Your task to perform on an android device: Clear the cart on ebay.com. Add "lenovo thinkpad" to the cart on ebay.com, then select checkout. Image 0: 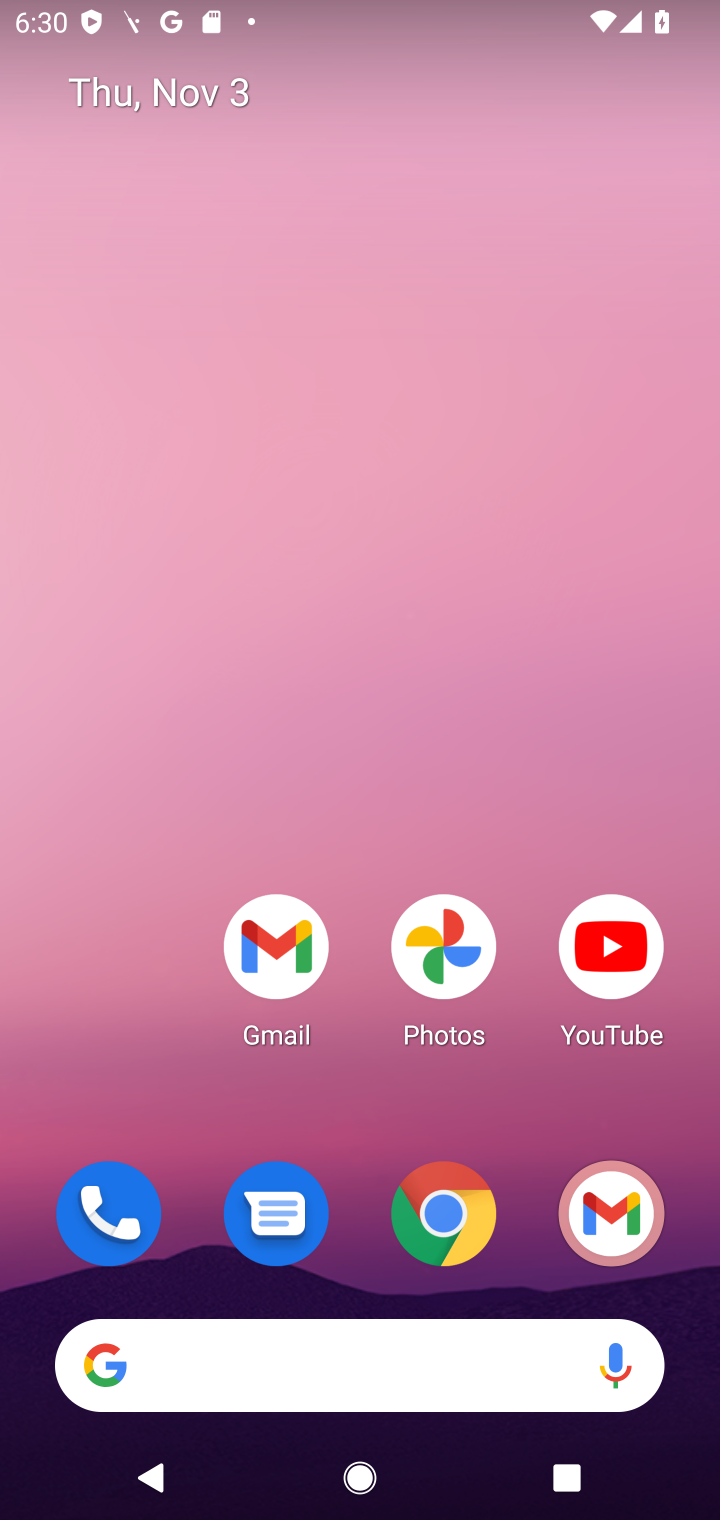
Step 0: click (439, 1226)
Your task to perform on an android device: Clear the cart on ebay.com. Add "lenovo thinkpad" to the cart on ebay.com, then select checkout. Image 1: 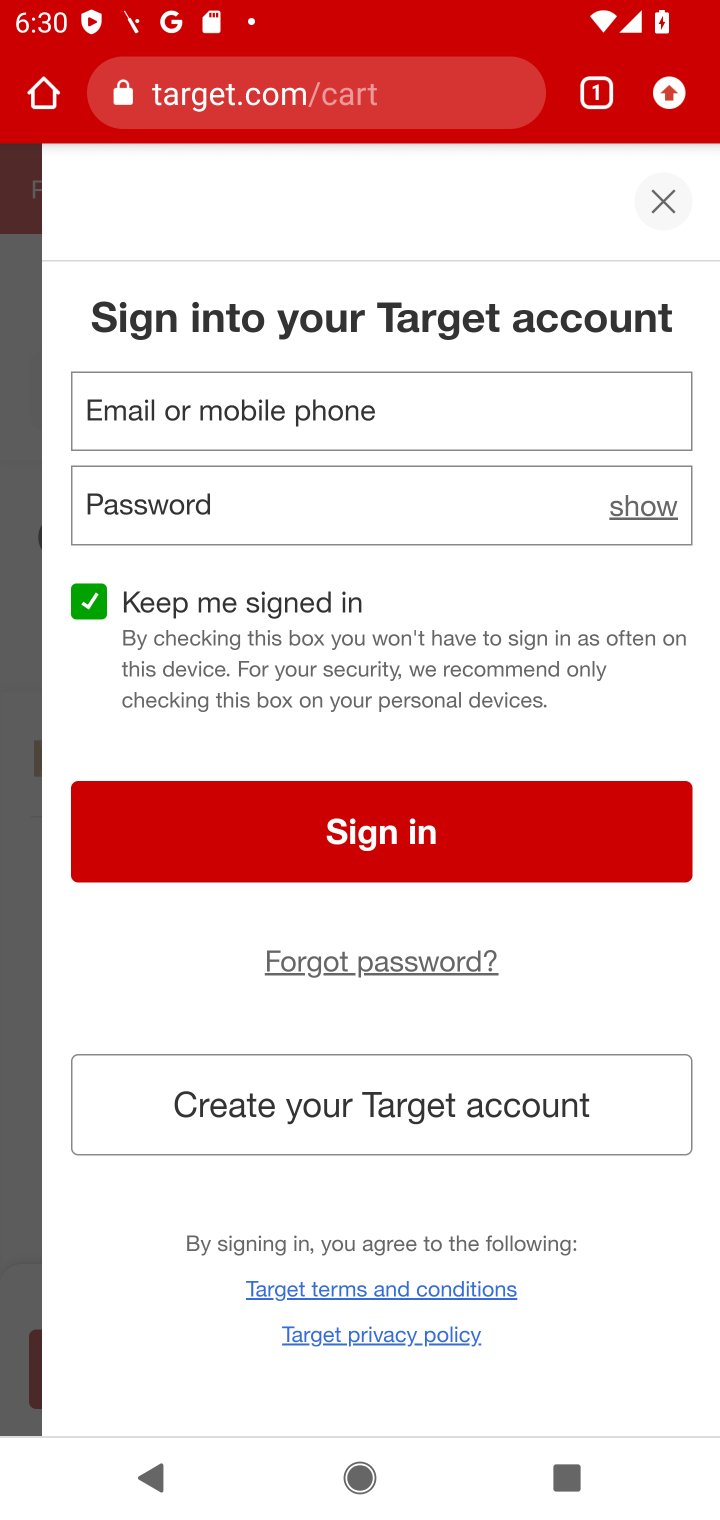
Step 1: click (238, 88)
Your task to perform on an android device: Clear the cart on ebay.com. Add "lenovo thinkpad" to the cart on ebay.com, then select checkout. Image 2: 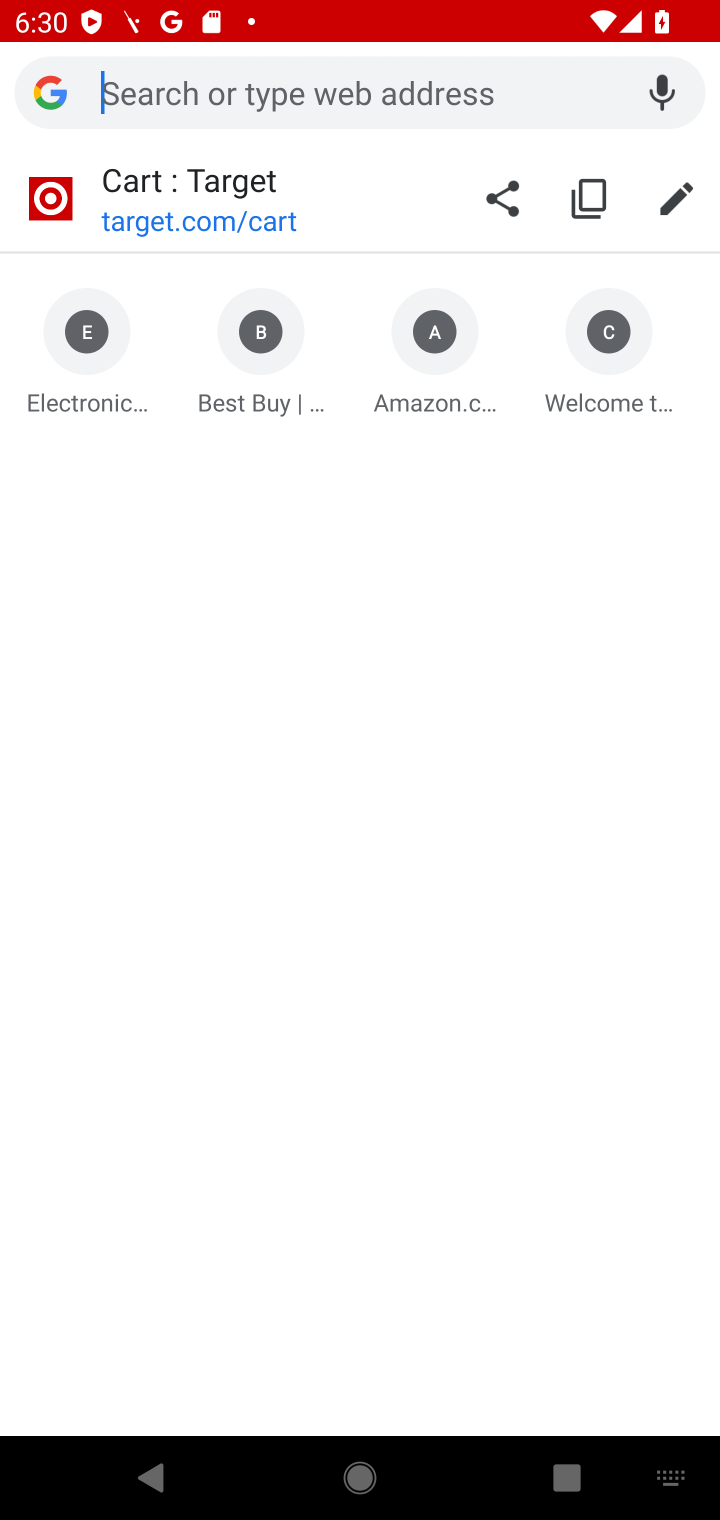
Step 2: type "ebay.com"
Your task to perform on an android device: Clear the cart on ebay.com. Add "lenovo thinkpad" to the cart on ebay.com, then select checkout. Image 3: 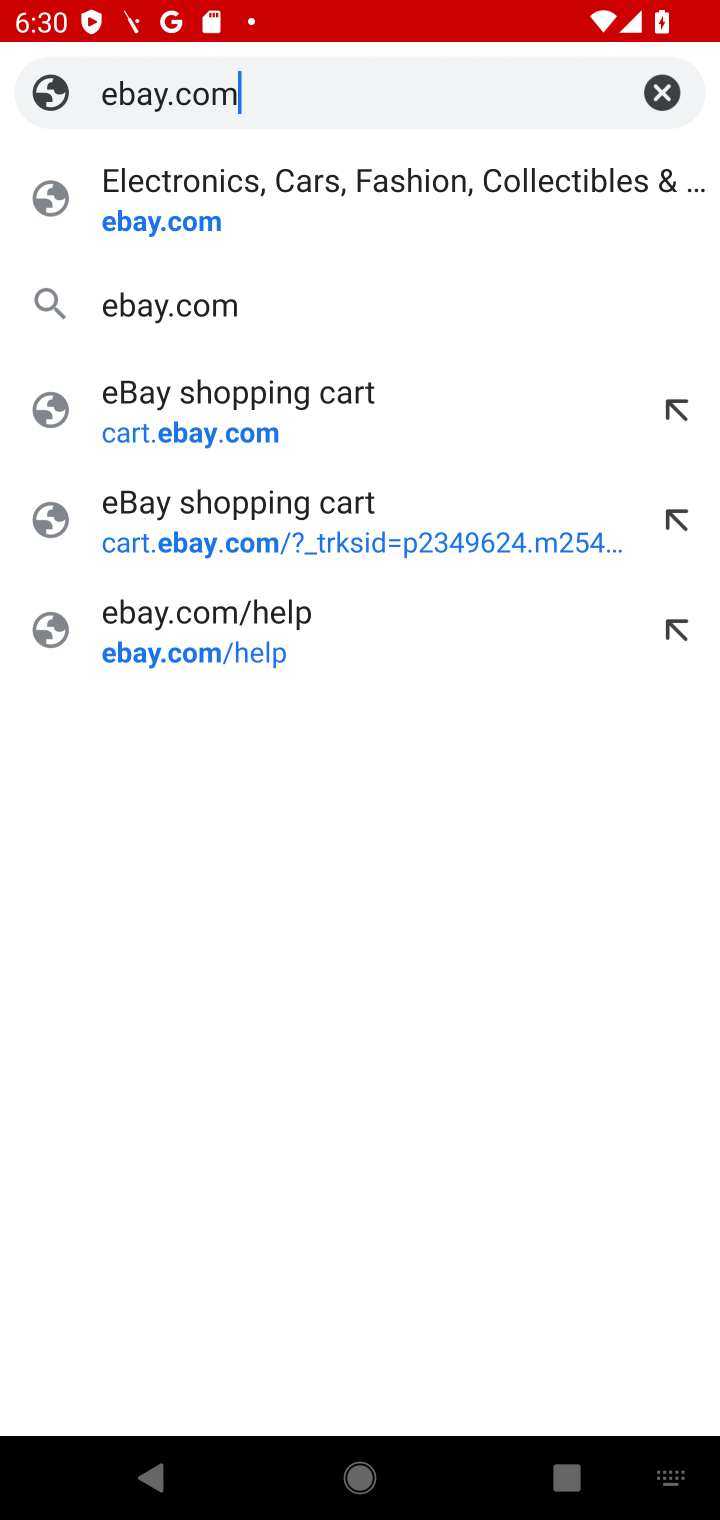
Step 3: click (186, 245)
Your task to perform on an android device: Clear the cart on ebay.com. Add "lenovo thinkpad" to the cart on ebay.com, then select checkout. Image 4: 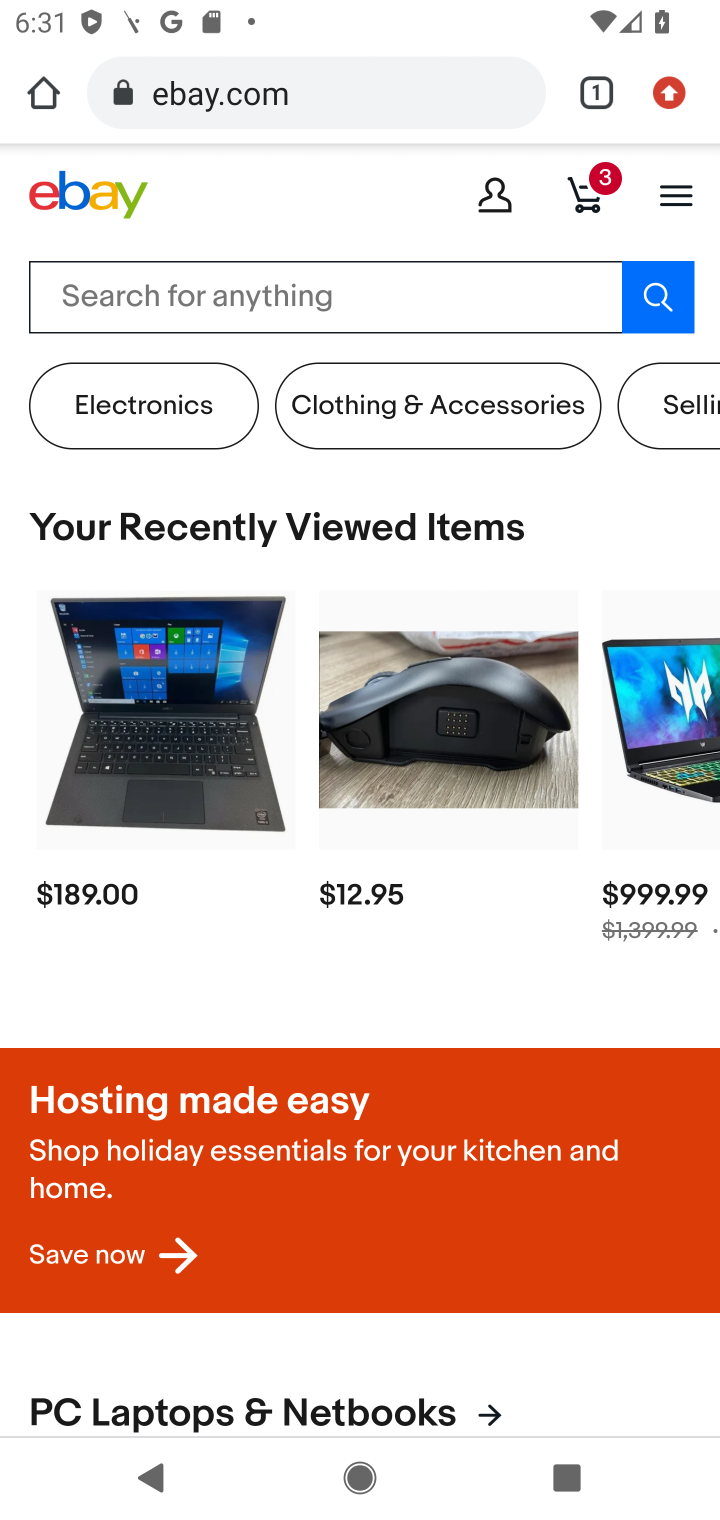
Step 4: click (593, 193)
Your task to perform on an android device: Clear the cart on ebay.com. Add "lenovo thinkpad" to the cart on ebay.com, then select checkout. Image 5: 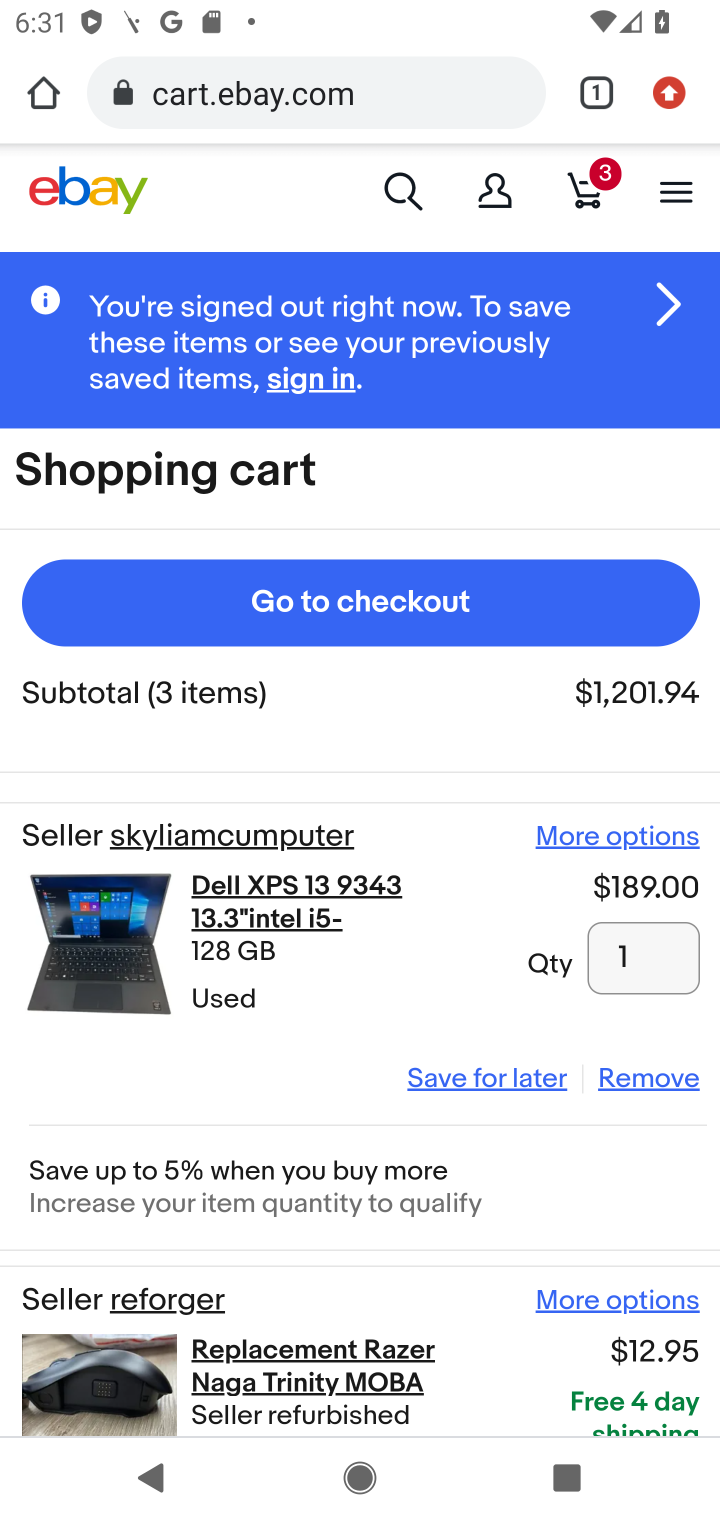
Step 5: click (620, 1074)
Your task to perform on an android device: Clear the cart on ebay.com. Add "lenovo thinkpad" to the cart on ebay.com, then select checkout. Image 6: 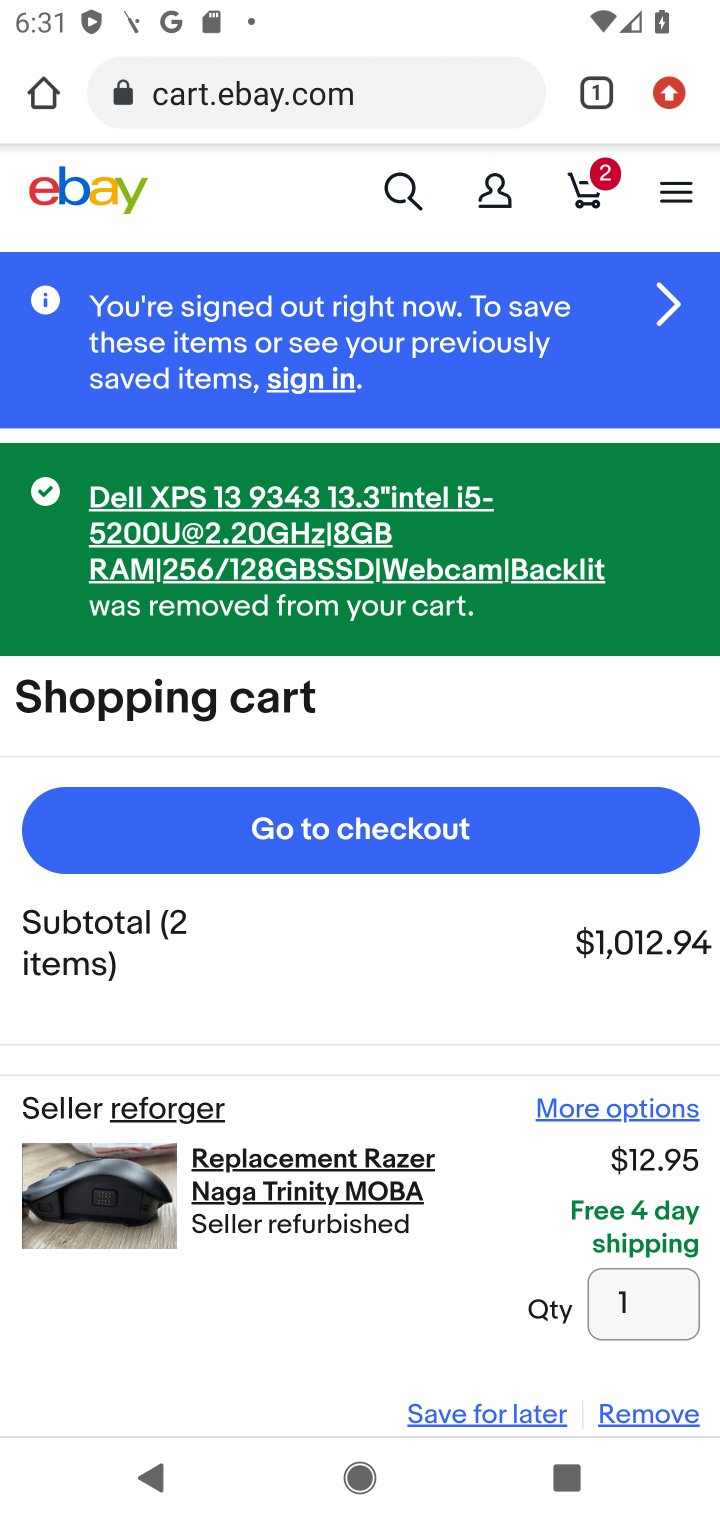
Step 6: click (632, 1417)
Your task to perform on an android device: Clear the cart on ebay.com. Add "lenovo thinkpad" to the cart on ebay.com, then select checkout. Image 7: 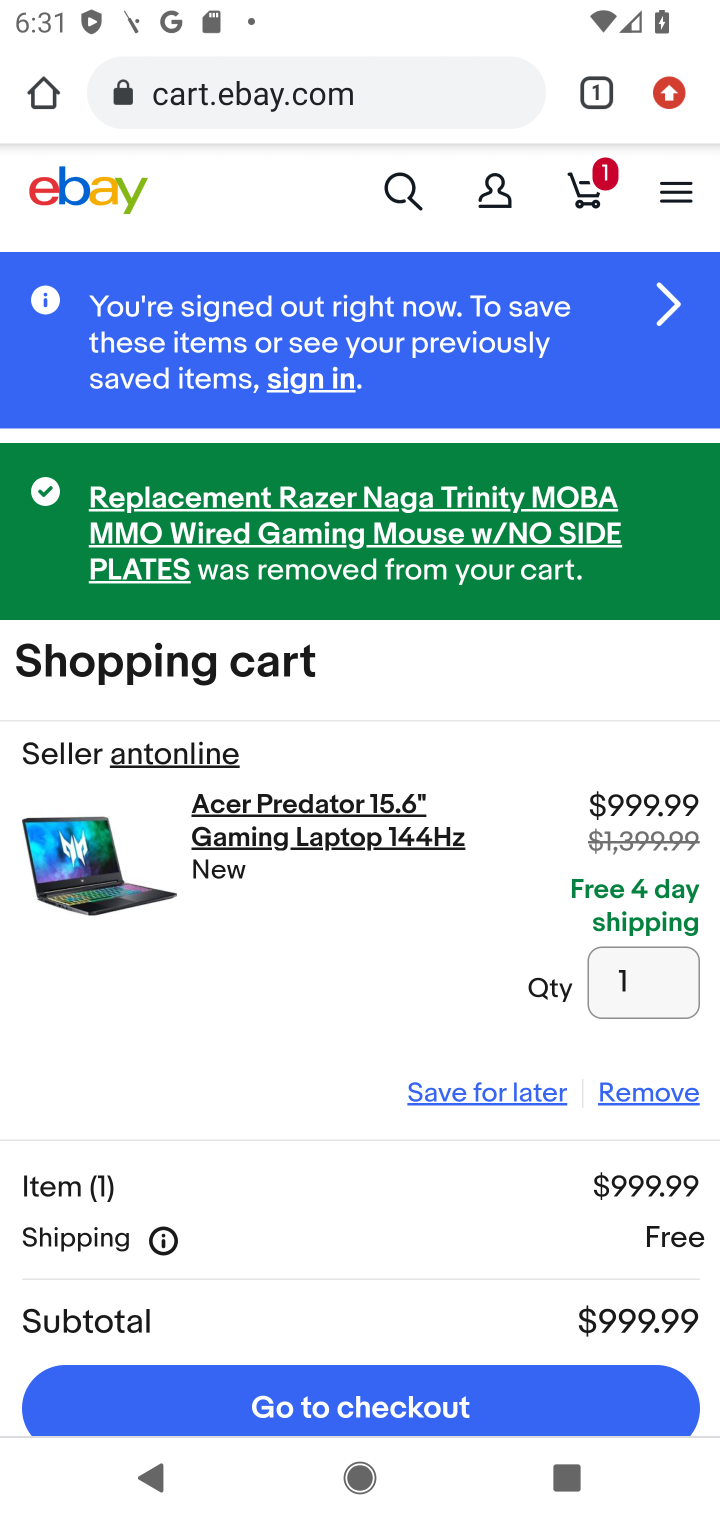
Step 7: click (640, 1089)
Your task to perform on an android device: Clear the cart on ebay.com. Add "lenovo thinkpad" to the cart on ebay.com, then select checkout. Image 8: 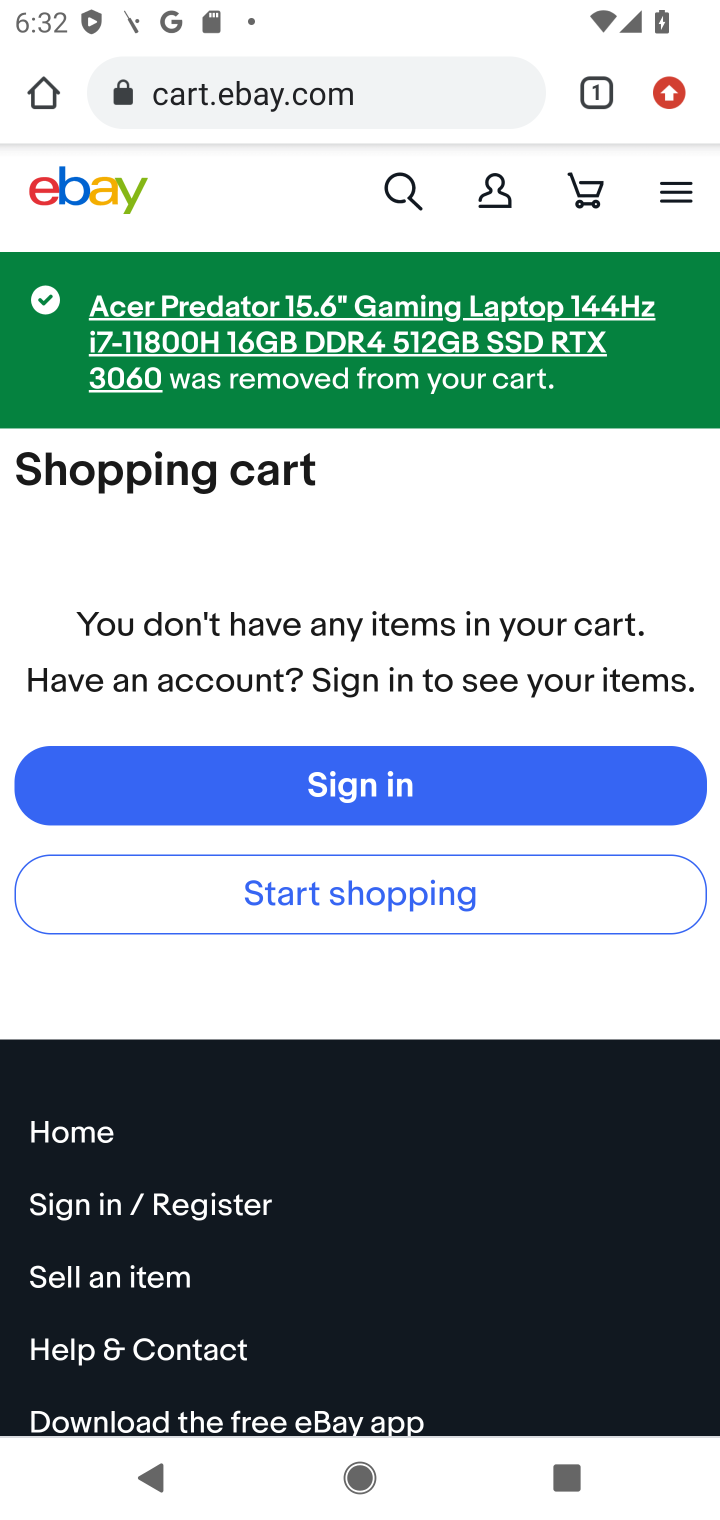
Step 8: click (406, 181)
Your task to perform on an android device: Clear the cart on ebay.com. Add "lenovo thinkpad" to the cart on ebay.com, then select checkout. Image 9: 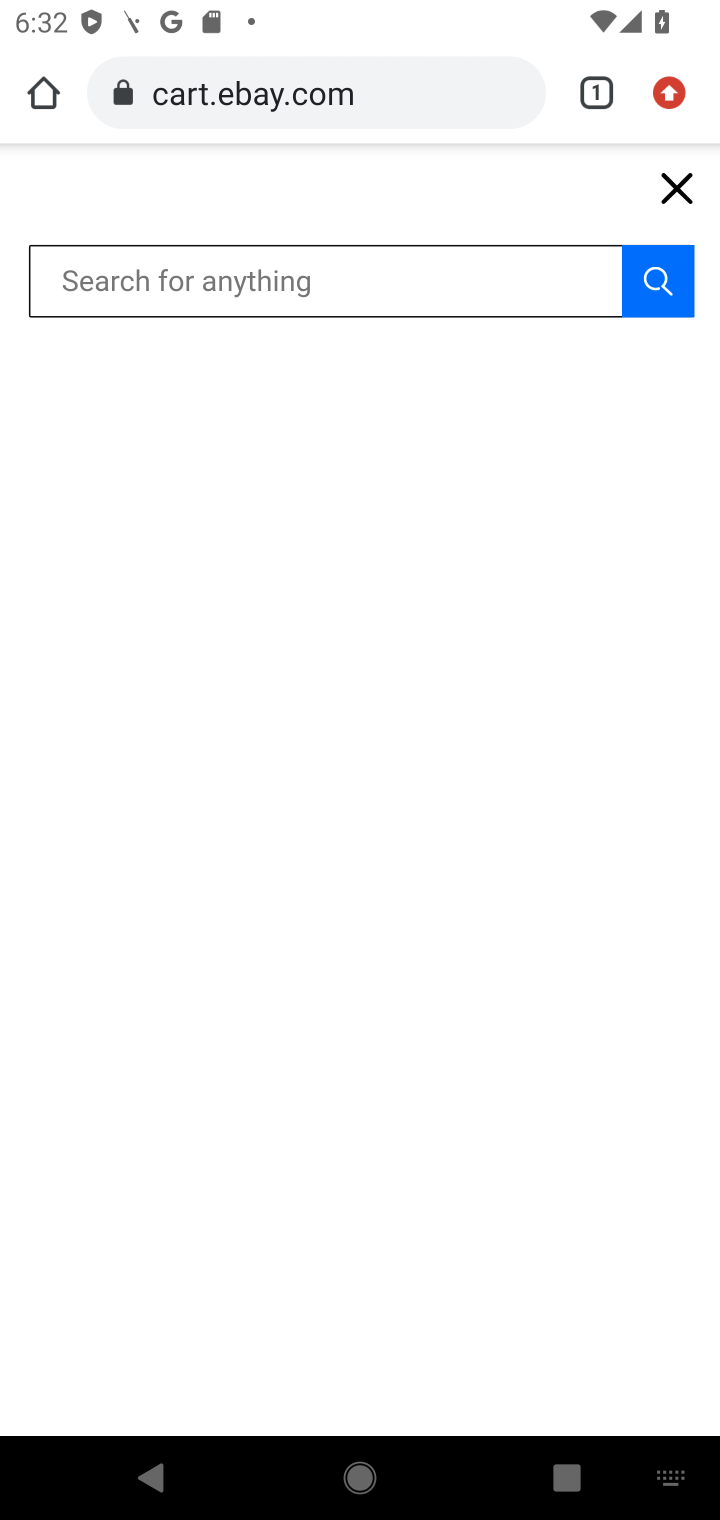
Step 9: type "lenovo thinkpad"
Your task to perform on an android device: Clear the cart on ebay.com. Add "lenovo thinkpad" to the cart on ebay.com, then select checkout. Image 10: 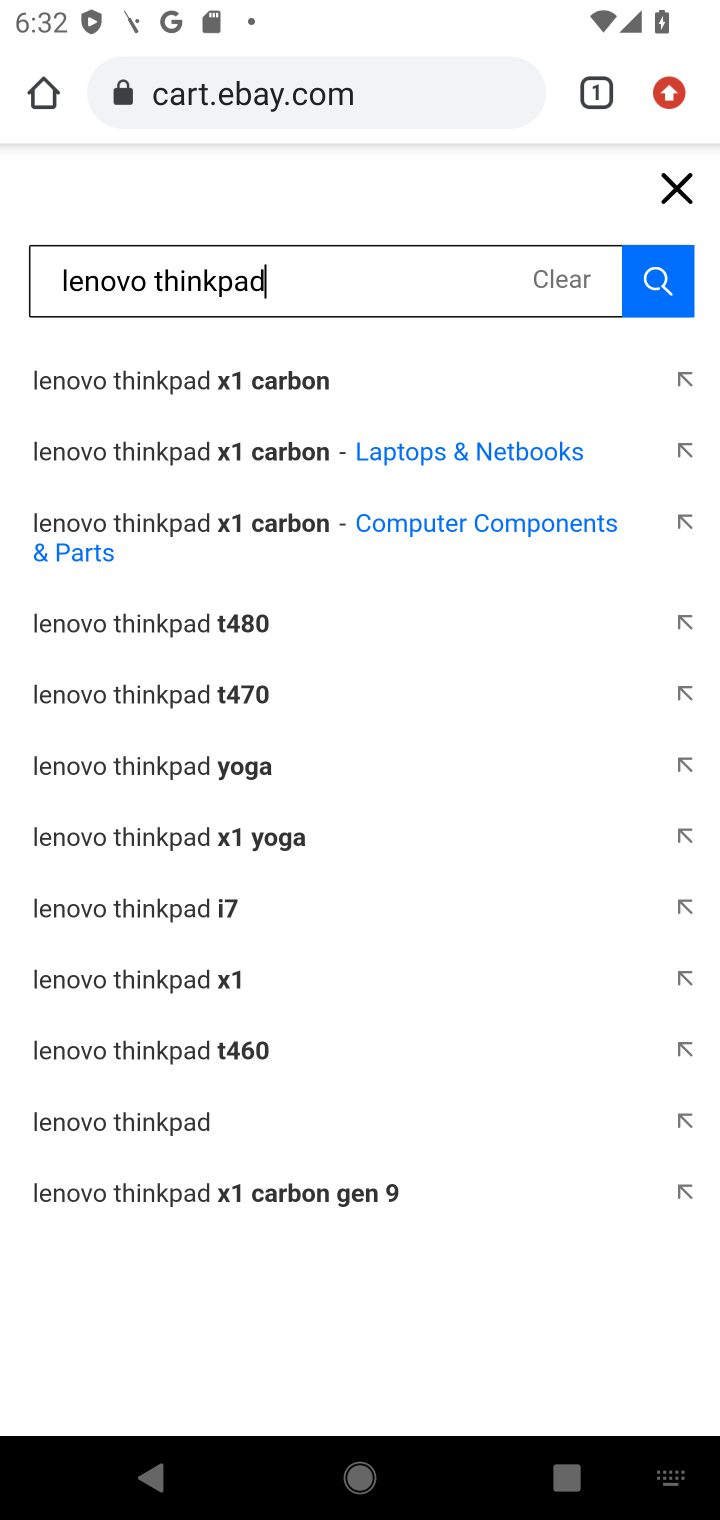
Step 10: click (188, 1126)
Your task to perform on an android device: Clear the cart on ebay.com. Add "lenovo thinkpad" to the cart on ebay.com, then select checkout. Image 11: 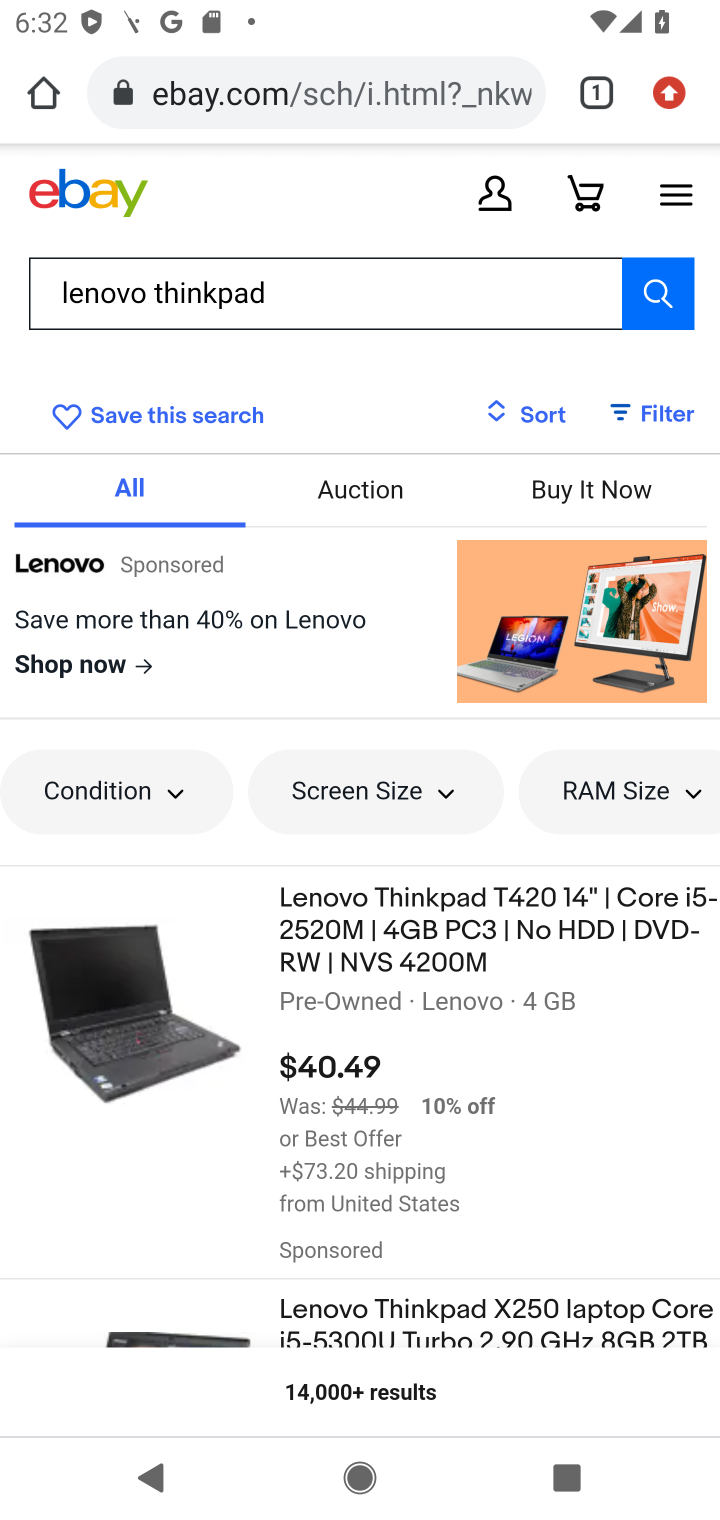
Step 11: click (295, 1069)
Your task to perform on an android device: Clear the cart on ebay.com. Add "lenovo thinkpad" to the cart on ebay.com, then select checkout. Image 12: 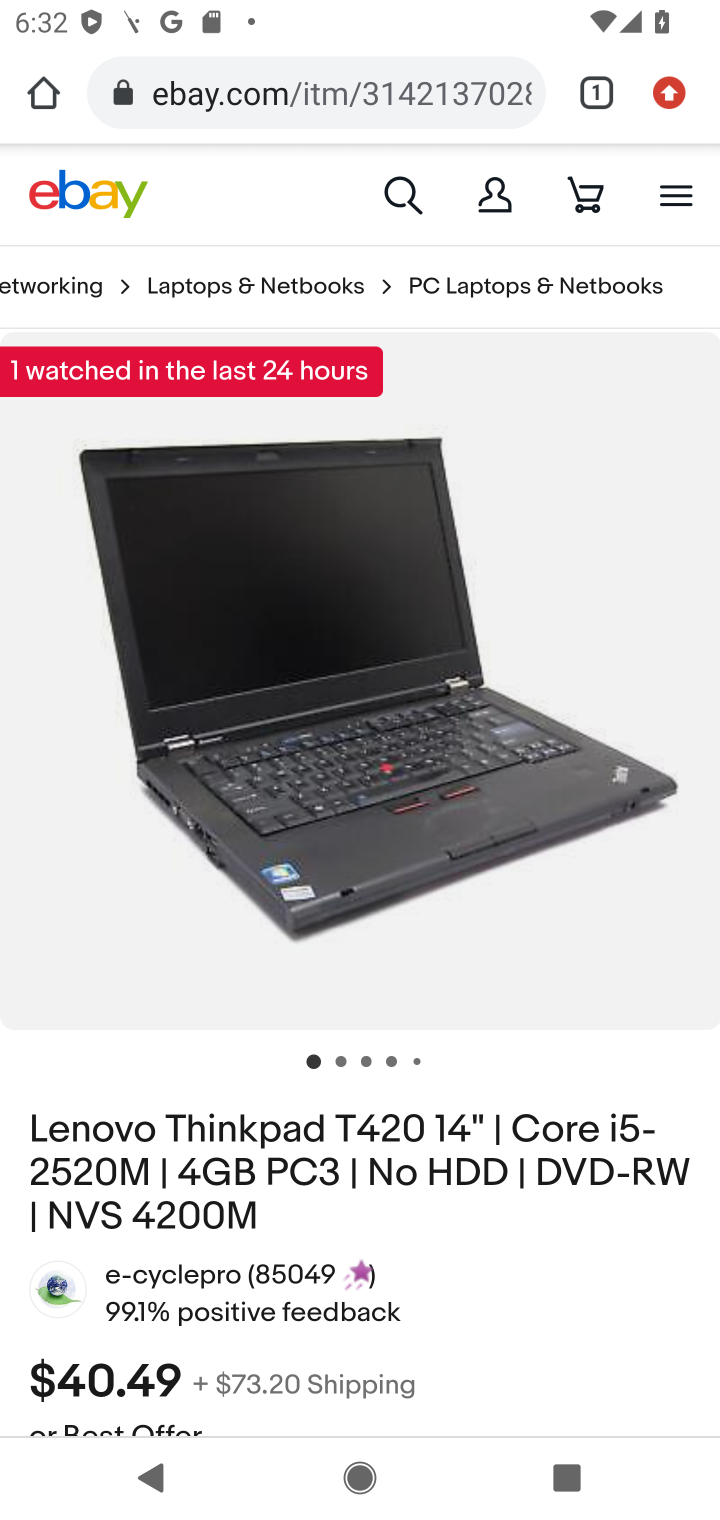
Step 12: drag from (398, 1239) to (431, 541)
Your task to perform on an android device: Clear the cart on ebay.com. Add "lenovo thinkpad" to the cart on ebay.com, then select checkout. Image 13: 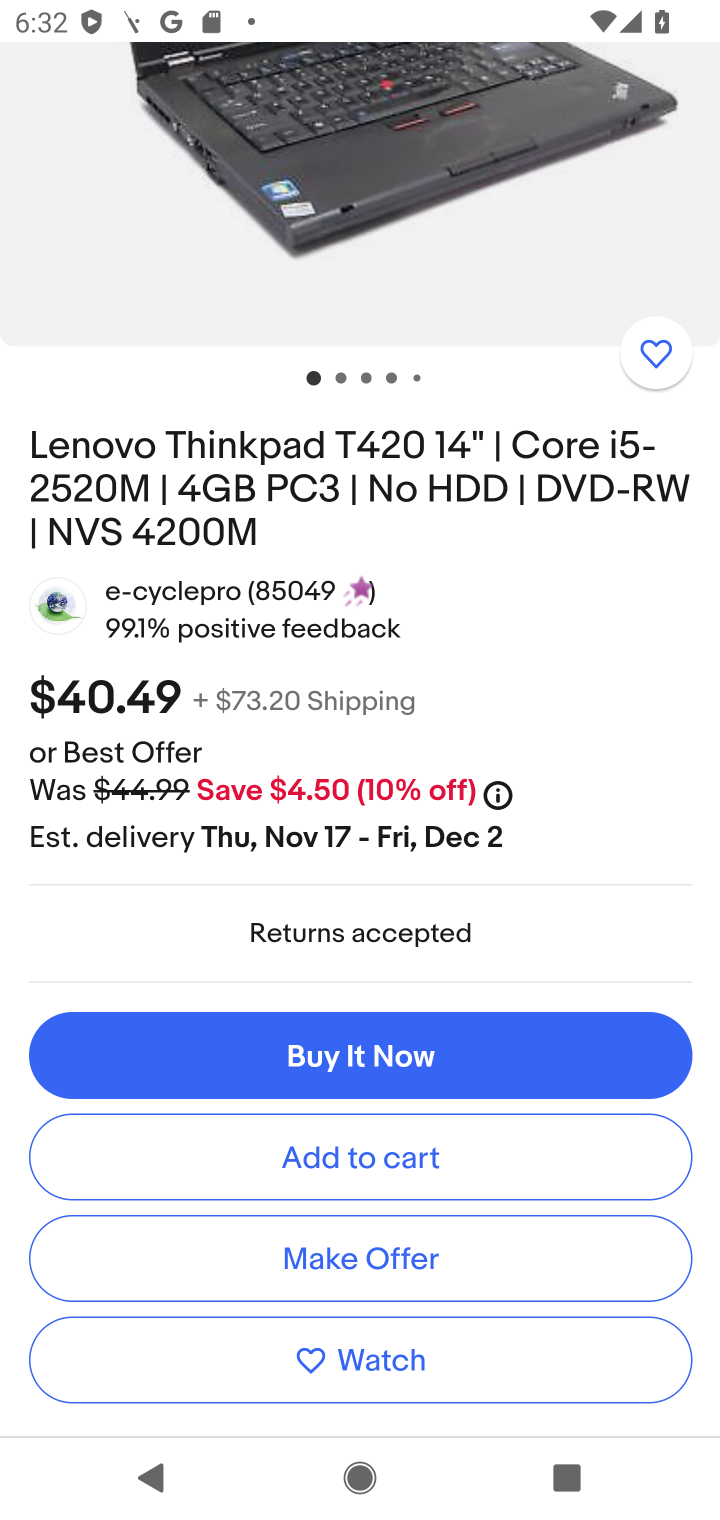
Step 13: click (326, 1151)
Your task to perform on an android device: Clear the cart on ebay.com. Add "lenovo thinkpad" to the cart on ebay.com, then select checkout. Image 14: 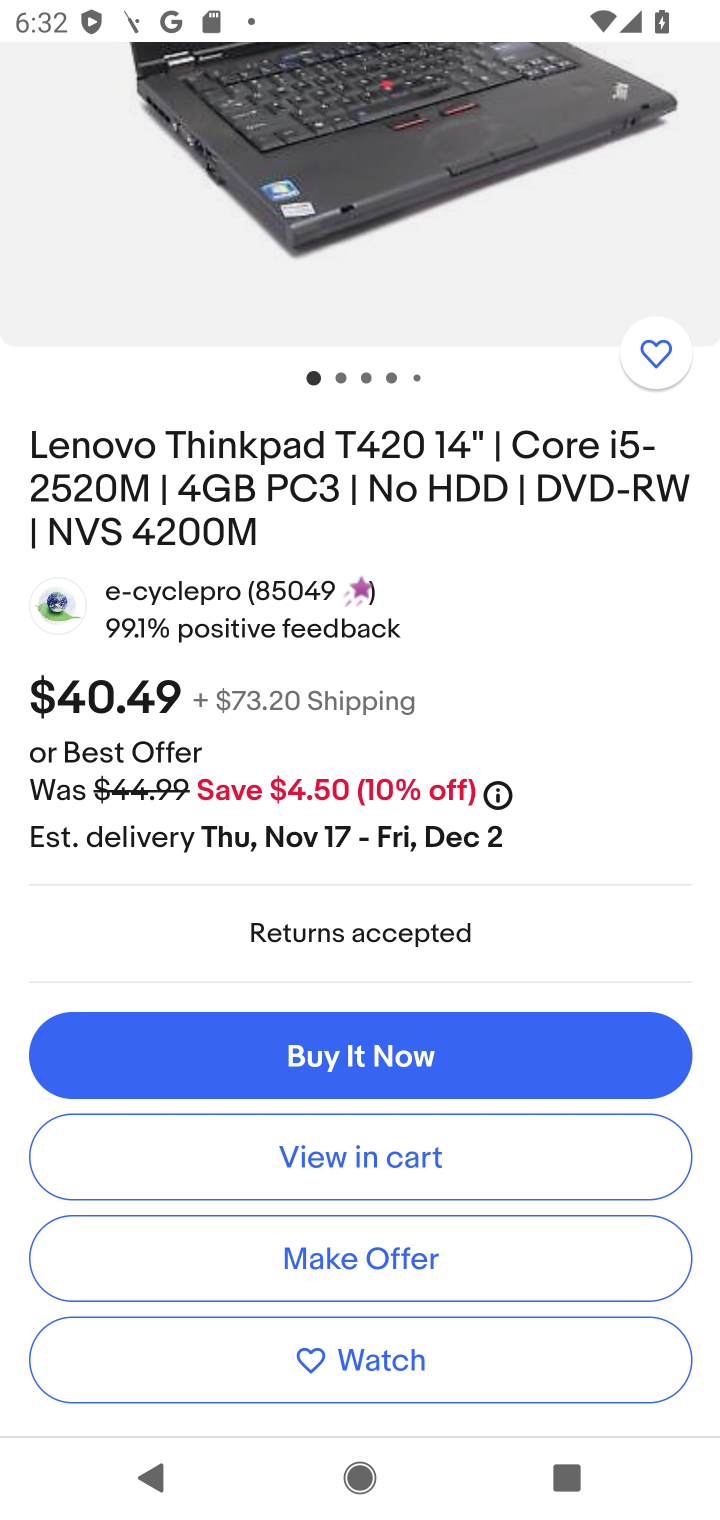
Step 14: click (326, 1153)
Your task to perform on an android device: Clear the cart on ebay.com. Add "lenovo thinkpad" to the cart on ebay.com, then select checkout. Image 15: 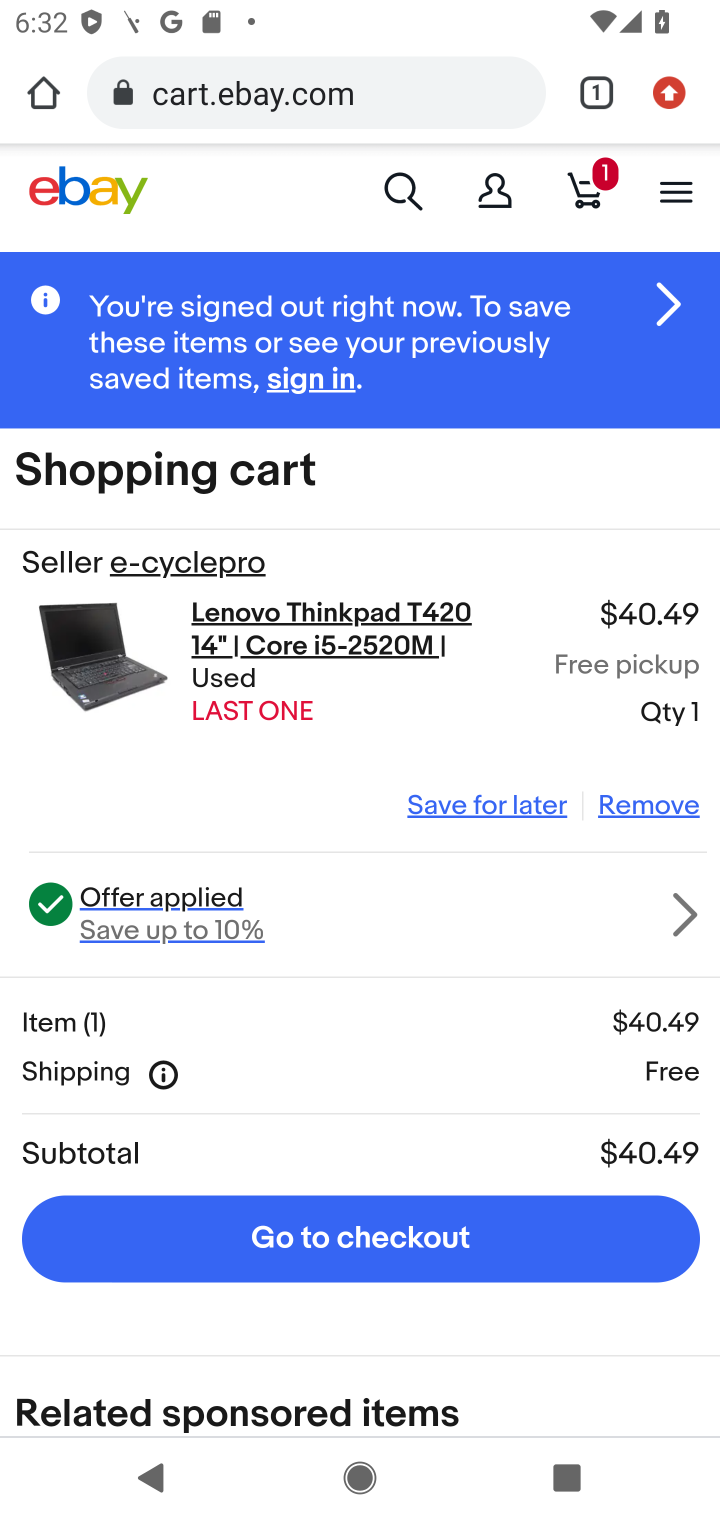
Step 15: click (333, 1227)
Your task to perform on an android device: Clear the cart on ebay.com. Add "lenovo thinkpad" to the cart on ebay.com, then select checkout. Image 16: 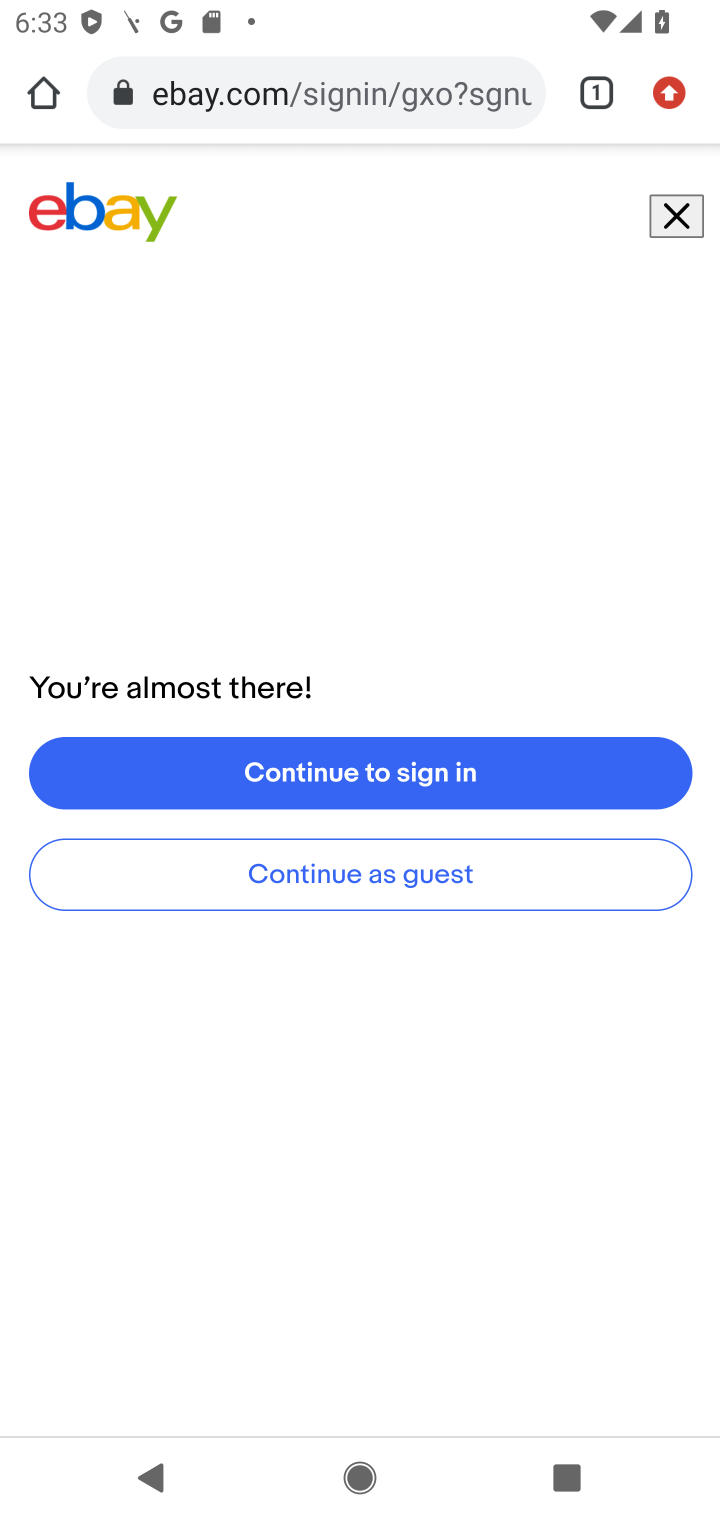
Step 16: task complete